Your task to perform on an android device: move an email to a new category in the gmail app Image 0: 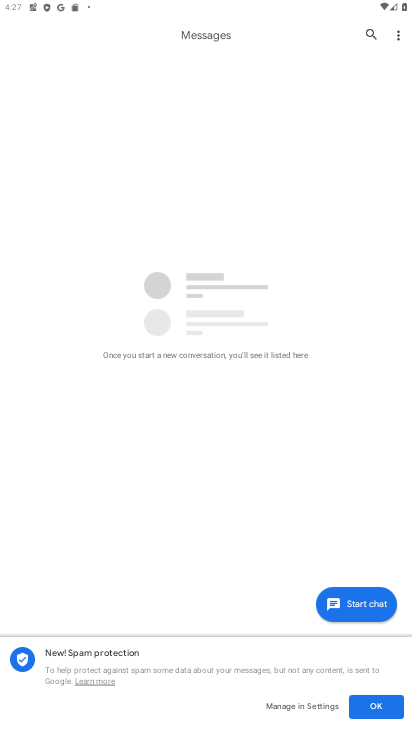
Step 0: press home button
Your task to perform on an android device: move an email to a new category in the gmail app Image 1: 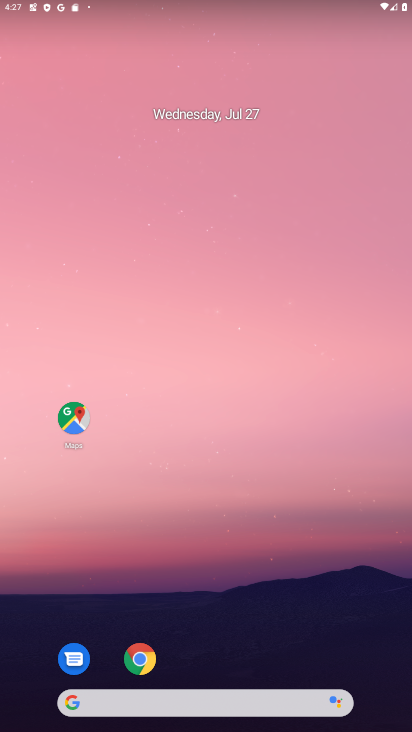
Step 1: click (199, 53)
Your task to perform on an android device: move an email to a new category in the gmail app Image 2: 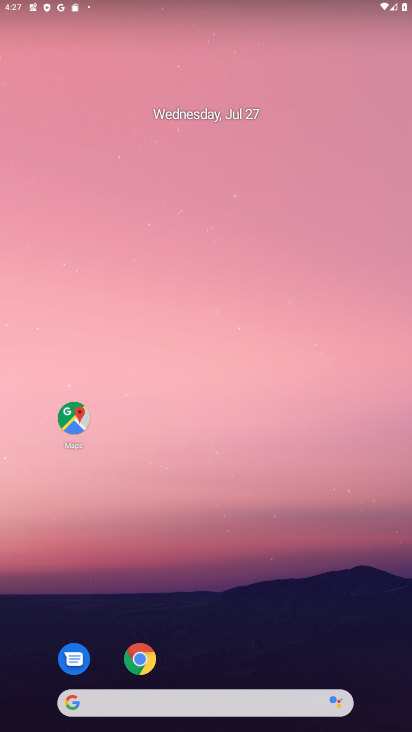
Step 2: drag from (267, 660) to (261, 123)
Your task to perform on an android device: move an email to a new category in the gmail app Image 3: 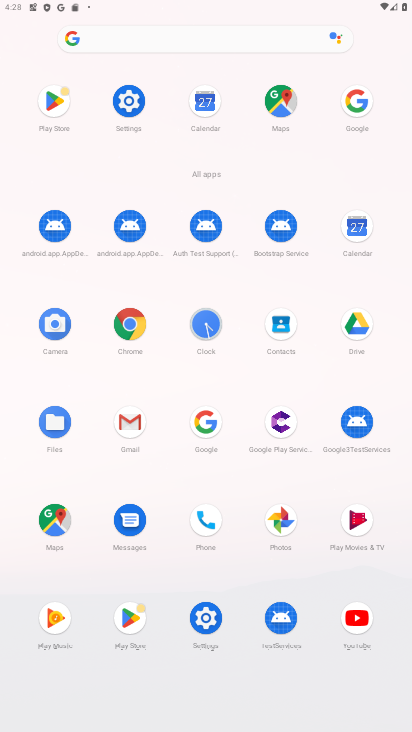
Step 3: click (127, 427)
Your task to perform on an android device: move an email to a new category in the gmail app Image 4: 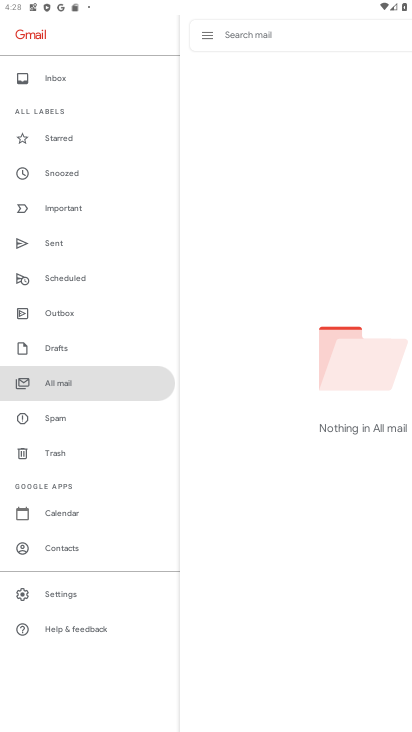
Step 4: task complete